Your task to perform on an android device: open chrome and create a bookmark for the current page Image 0: 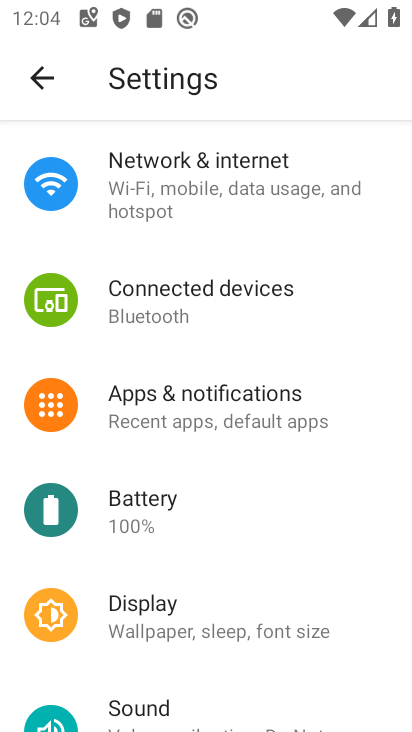
Step 0: press home button
Your task to perform on an android device: open chrome and create a bookmark for the current page Image 1: 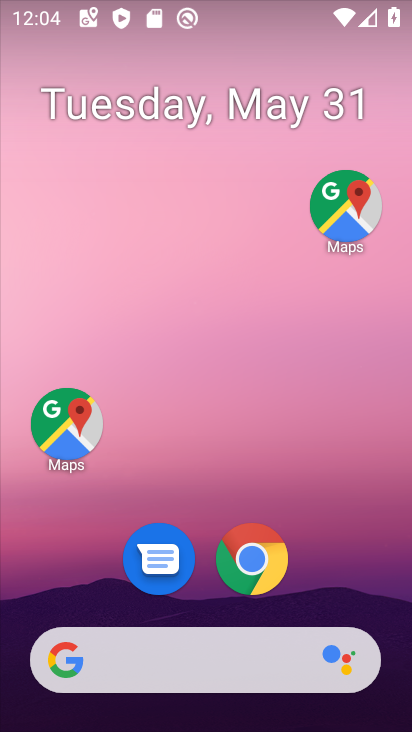
Step 1: click (246, 562)
Your task to perform on an android device: open chrome and create a bookmark for the current page Image 2: 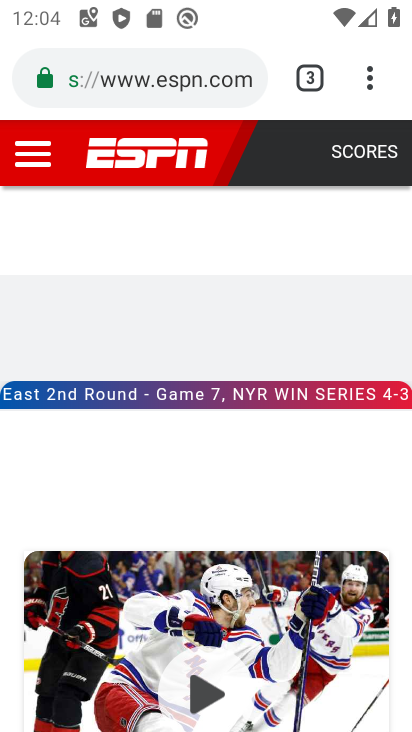
Step 2: task complete